Your task to perform on an android device: Is it going to rain this weekend? Image 0: 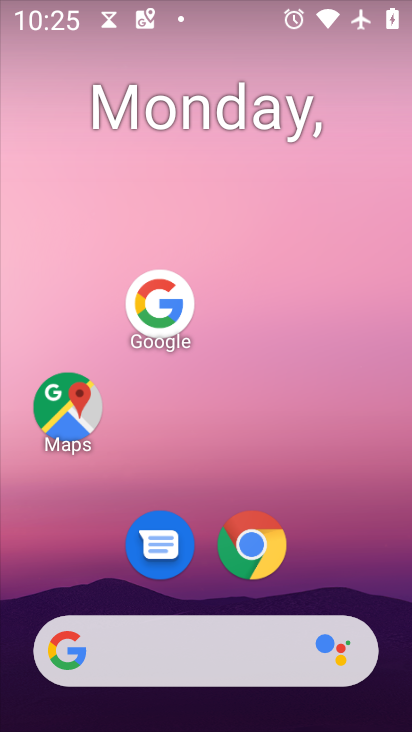
Step 0: press home button
Your task to perform on an android device: Is it going to rain this weekend? Image 1: 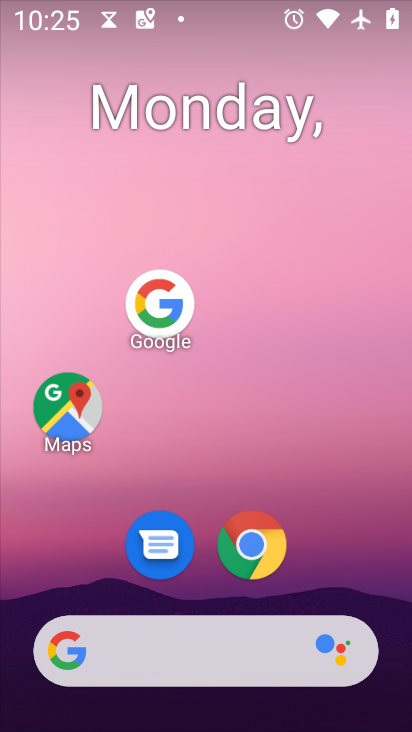
Step 1: click (74, 655)
Your task to perform on an android device: Is it going to rain this weekend? Image 2: 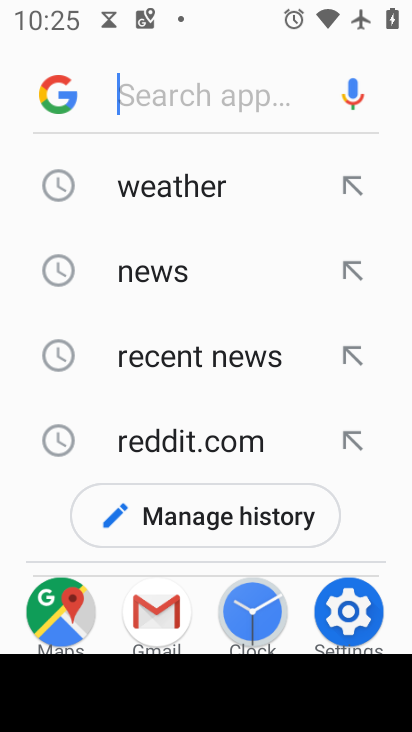
Step 2: click (225, 181)
Your task to perform on an android device: Is it going to rain this weekend? Image 3: 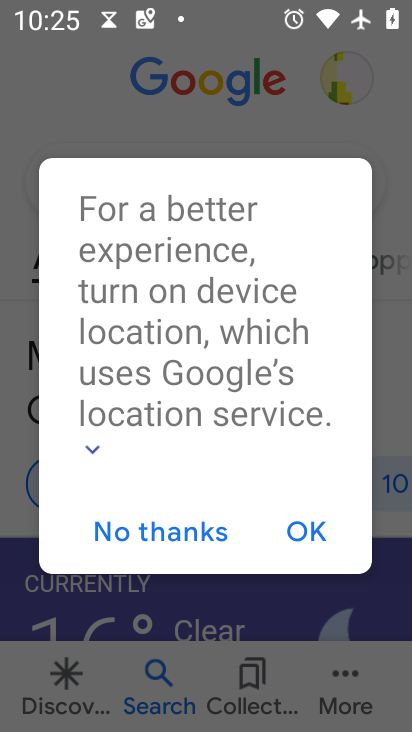
Step 3: click (309, 527)
Your task to perform on an android device: Is it going to rain this weekend? Image 4: 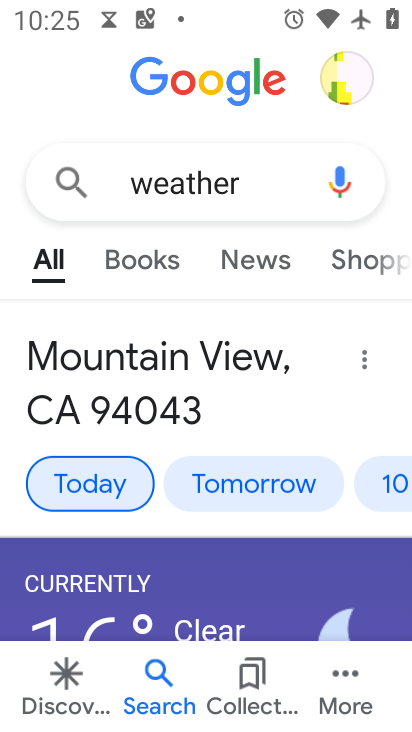
Step 4: drag from (389, 487) to (104, 467)
Your task to perform on an android device: Is it going to rain this weekend? Image 5: 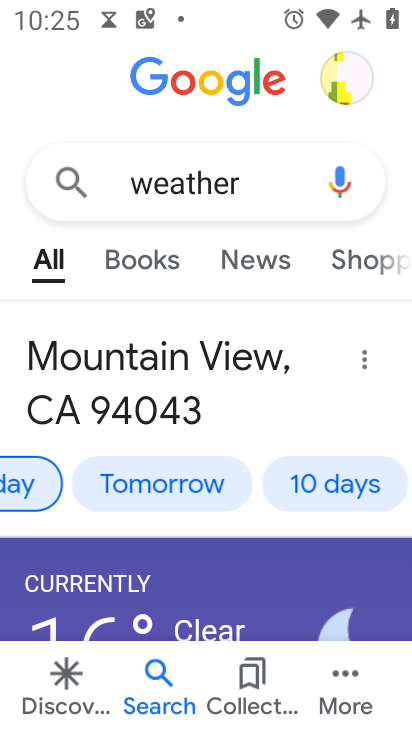
Step 5: click (342, 491)
Your task to perform on an android device: Is it going to rain this weekend? Image 6: 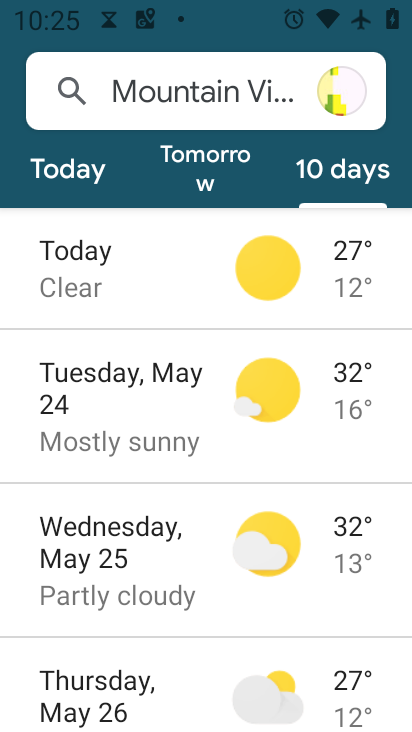
Step 6: drag from (162, 615) to (324, 112)
Your task to perform on an android device: Is it going to rain this weekend? Image 7: 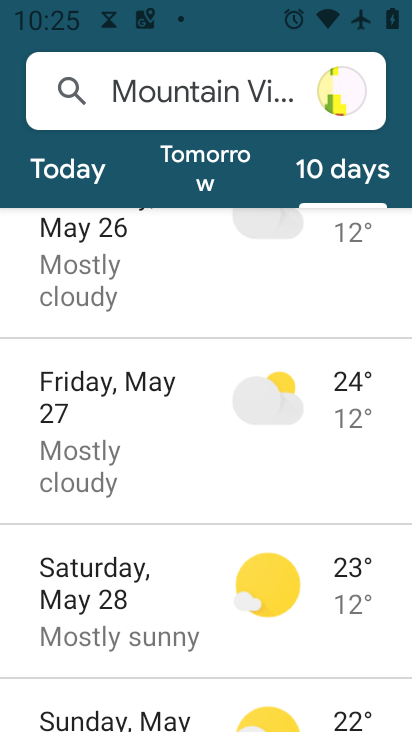
Step 7: click (115, 605)
Your task to perform on an android device: Is it going to rain this weekend? Image 8: 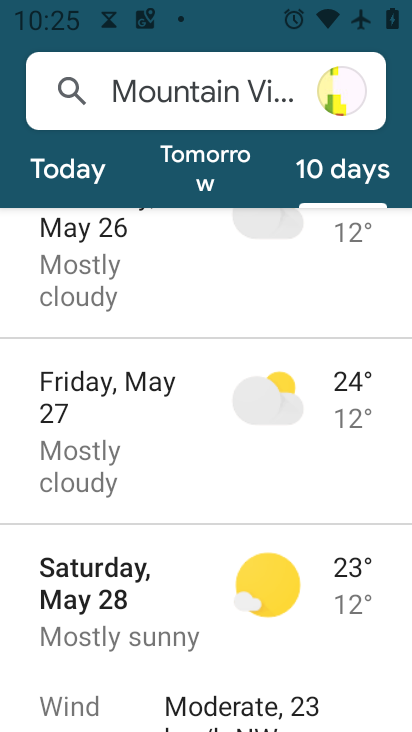
Step 8: click (115, 586)
Your task to perform on an android device: Is it going to rain this weekend? Image 9: 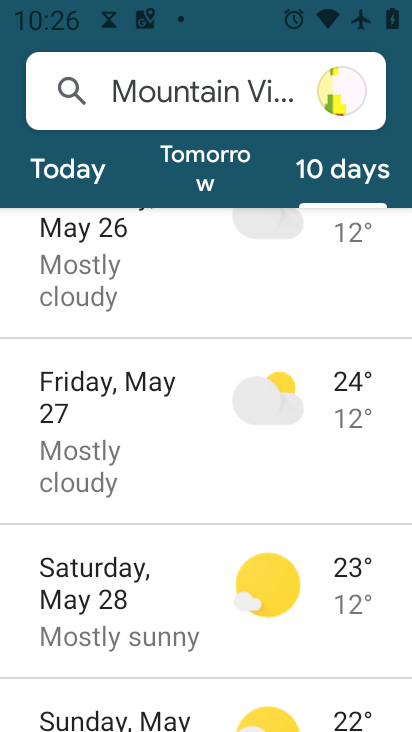
Step 9: click (116, 567)
Your task to perform on an android device: Is it going to rain this weekend? Image 10: 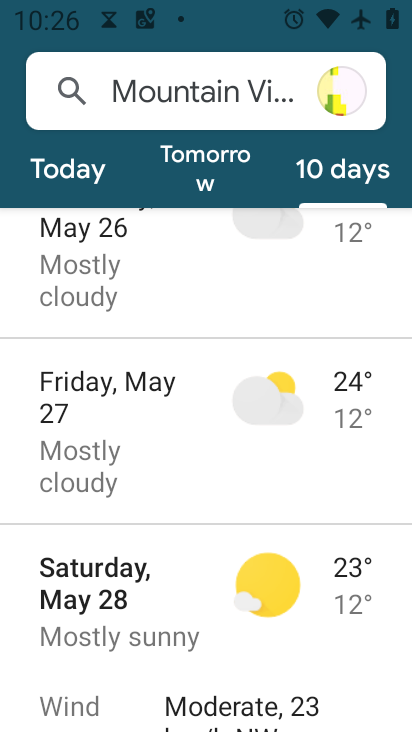
Step 10: task complete